Your task to perform on an android device: Open Chrome and go to the settings page Image 0: 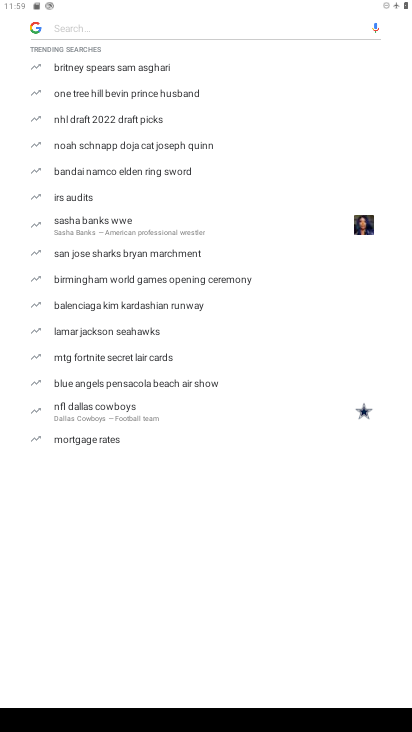
Step 0: press home button
Your task to perform on an android device: Open Chrome and go to the settings page Image 1: 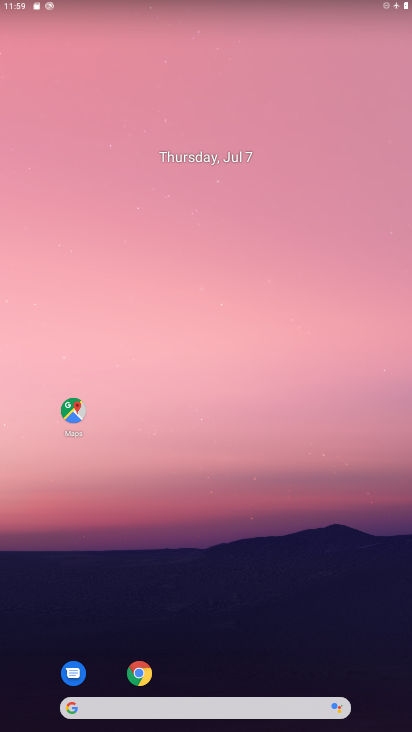
Step 1: click (141, 671)
Your task to perform on an android device: Open Chrome and go to the settings page Image 2: 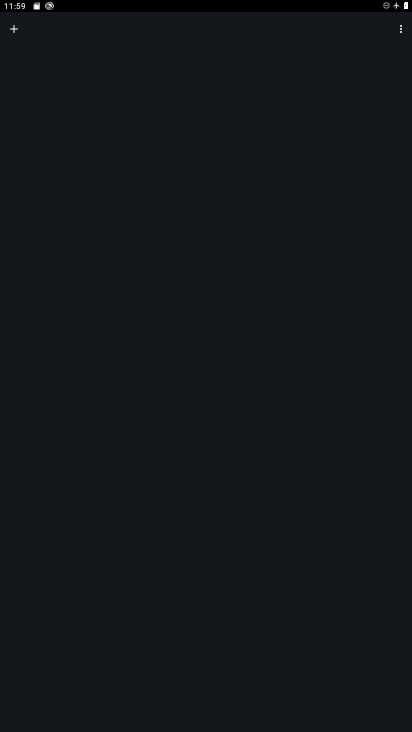
Step 2: press home button
Your task to perform on an android device: Open Chrome and go to the settings page Image 3: 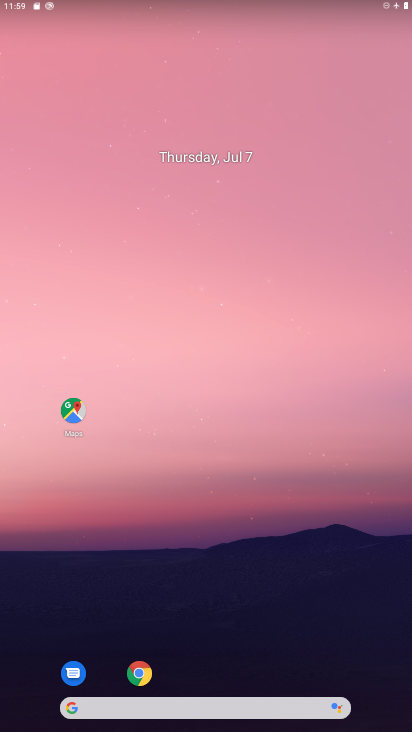
Step 3: drag from (269, 613) to (221, 42)
Your task to perform on an android device: Open Chrome and go to the settings page Image 4: 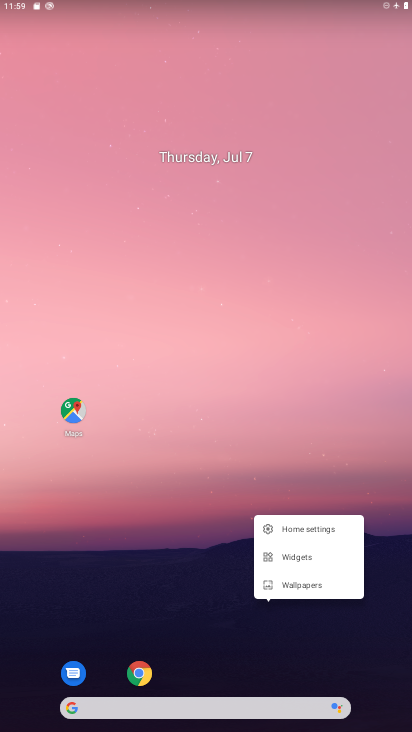
Step 4: click (189, 525)
Your task to perform on an android device: Open Chrome and go to the settings page Image 5: 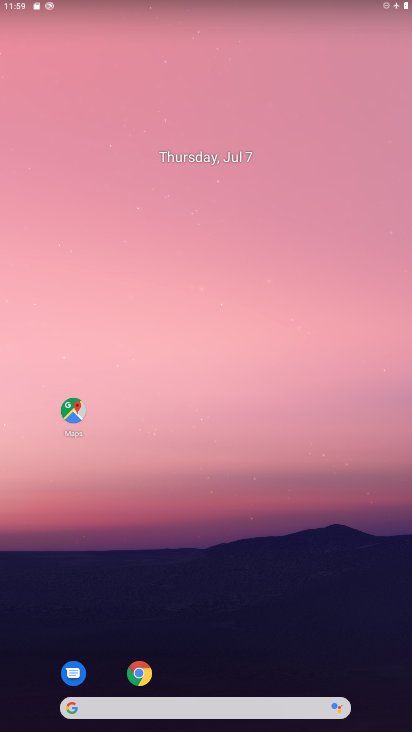
Step 5: click (189, 525)
Your task to perform on an android device: Open Chrome and go to the settings page Image 6: 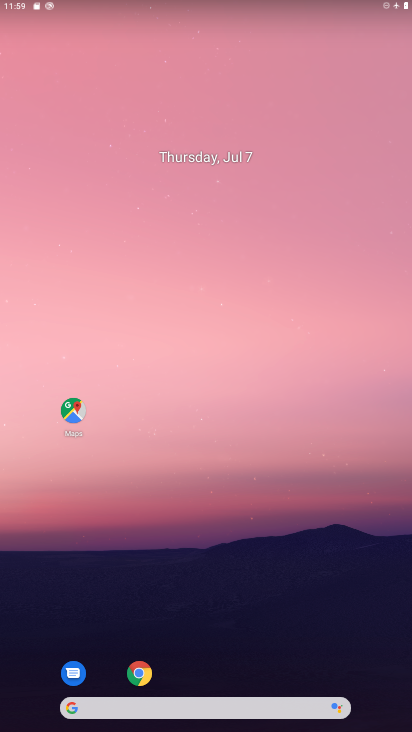
Step 6: drag from (215, 663) to (217, 127)
Your task to perform on an android device: Open Chrome and go to the settings page Image 7: 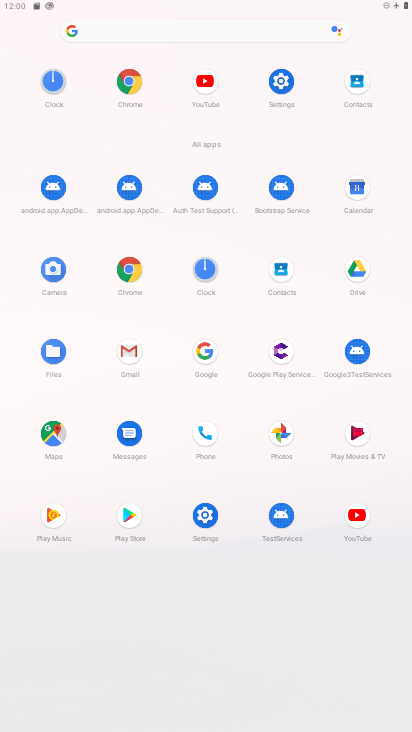
Step 7: click (120, 271)
Your task to perform on an android device: Open Chrome and go to the settings page Image 8: 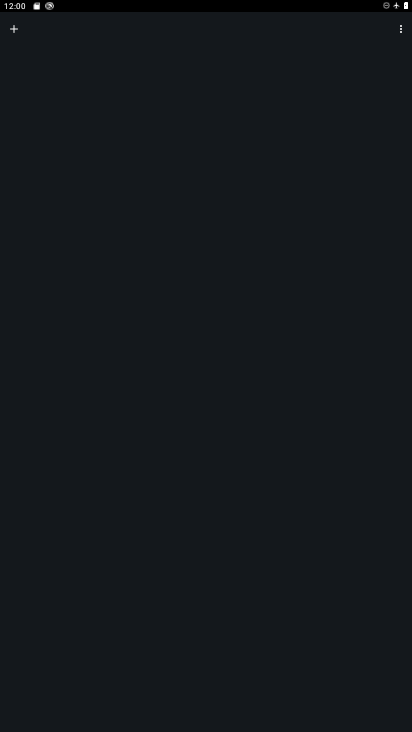
Step 8: click (401, 30)
Your task to perform on an android device: Open Chrome and go to the settings page Image 9: 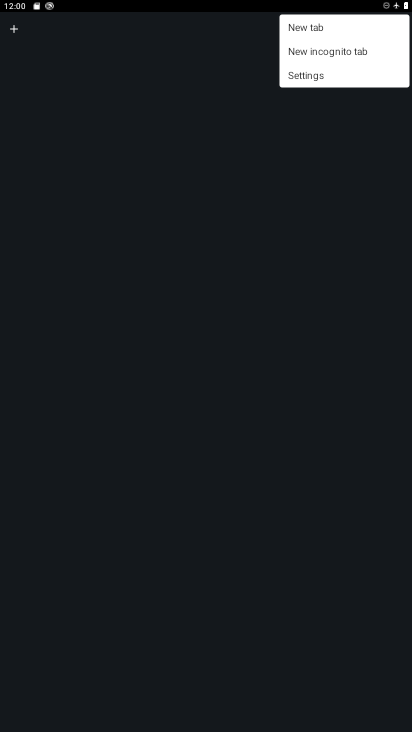
Step 9: click (334, 79)
Your task to perform on an android device: Open Chrome and go to the settings page Image 10: 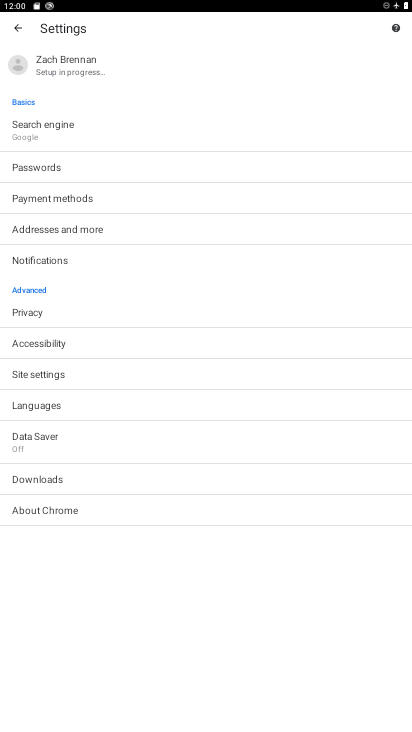
Step 10: task complete